Your task to perform on an android device: Go to calendar. Show me events next week Image 0: 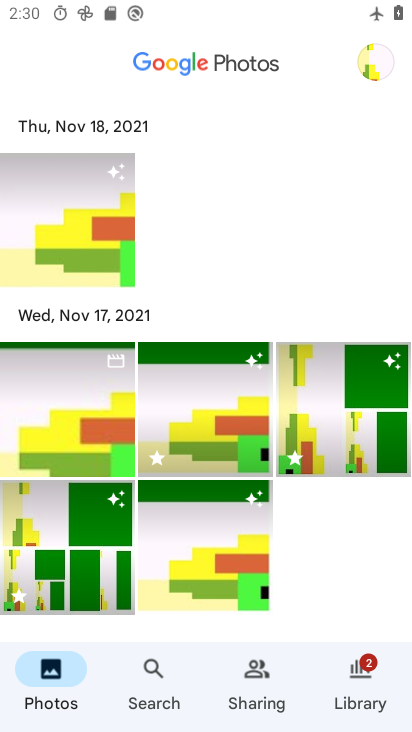
Step 0: press home button
Your task to perform on an android device: Go to calendar. Show me events next week Image 1: 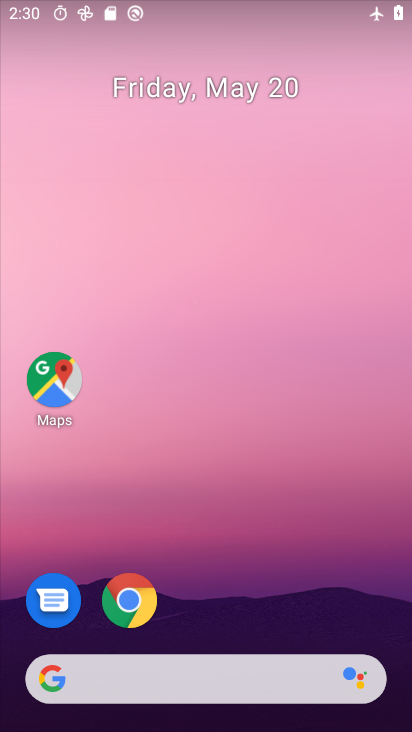
Step 1: click (214, 82)
Your task to perform on an android device: Go to calendar. Show me events next week Image 2: 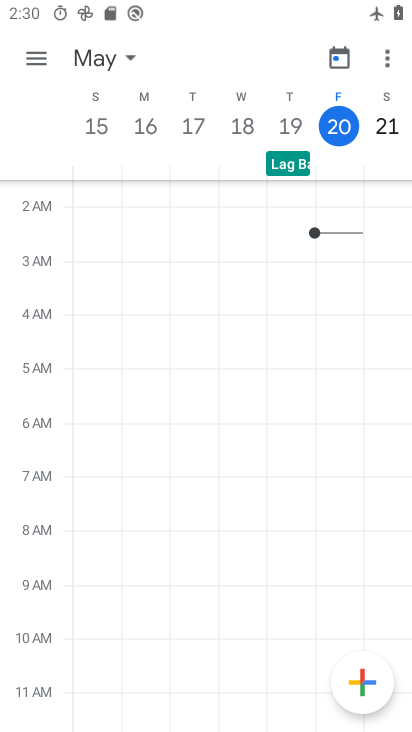
Step 2: press home button
Your task to perform on an android device: Go to calendar. Show me events next week Image 3: 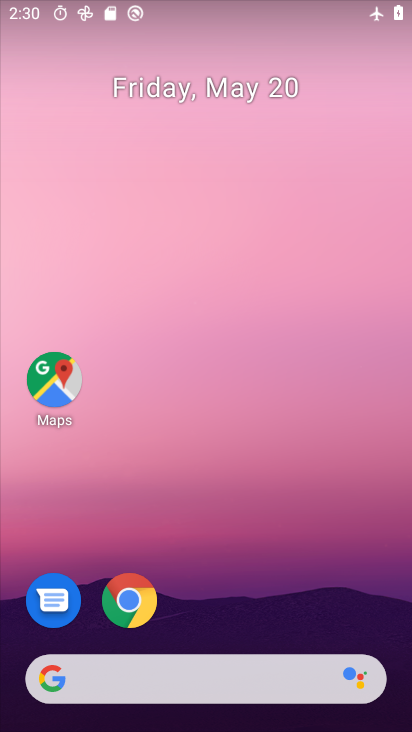
Step 3: click (176, 89)
Your task to perform on an android device: Go to calendar. Show me events next week Image 4: 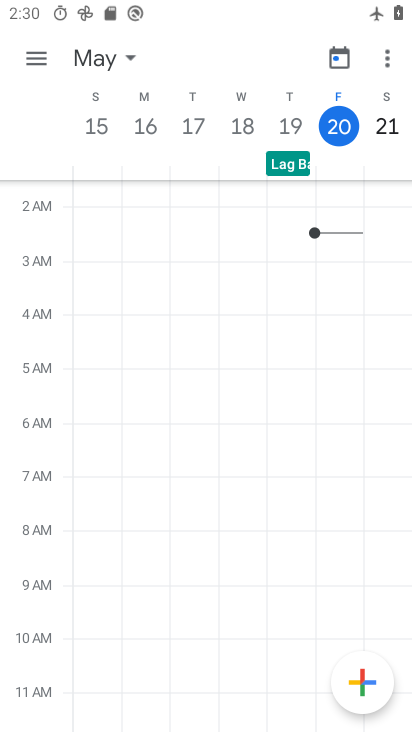
Step 4: click (87, 58)
Your task to perform on an android device: Go to calendar. Show me events next week Image 5: 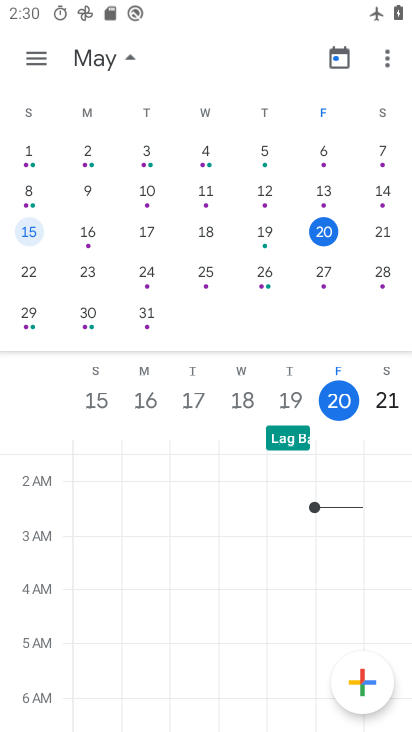
Step 5: click (27, 268)
Your task to perform on an android device: Go to calendar. Show me events next week Image 6: 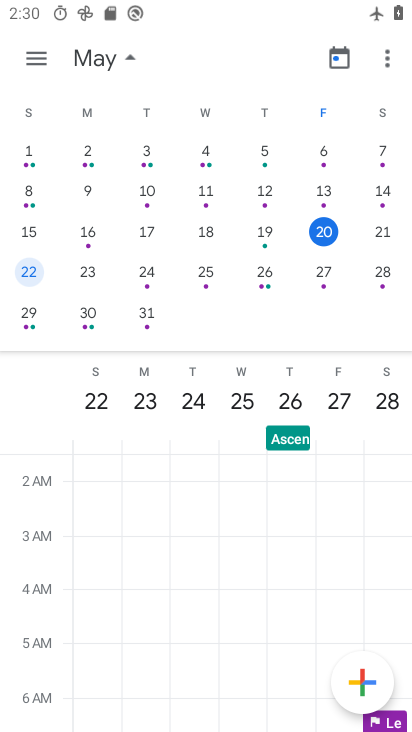
Step 6: task complete